Your task to perform on an android device: install app "Messages" Image 0: 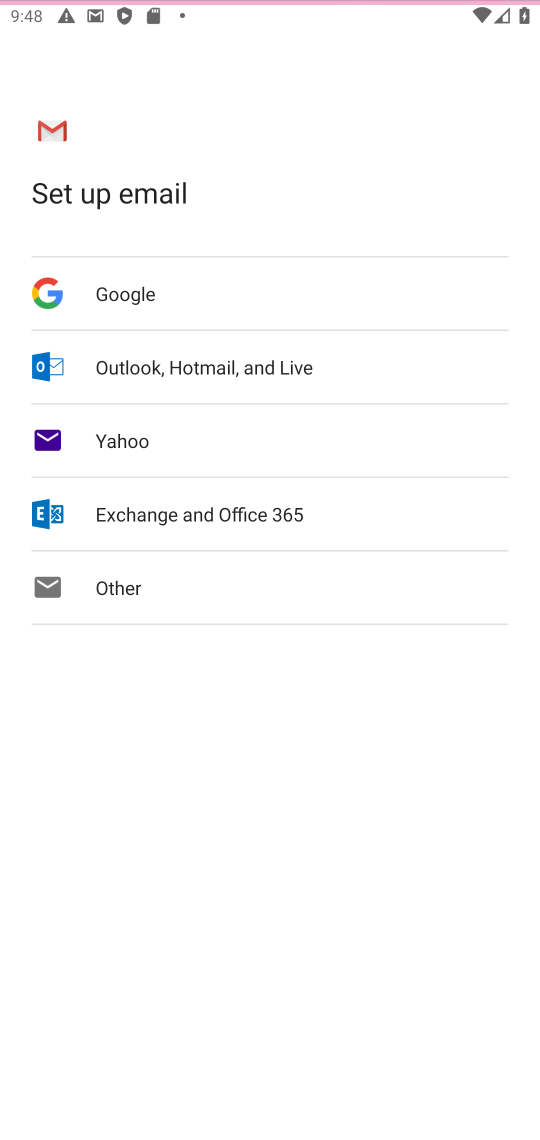
Step 0: click (216, 513)
Your task to perform on an android device: install app "Messages" Image 1: 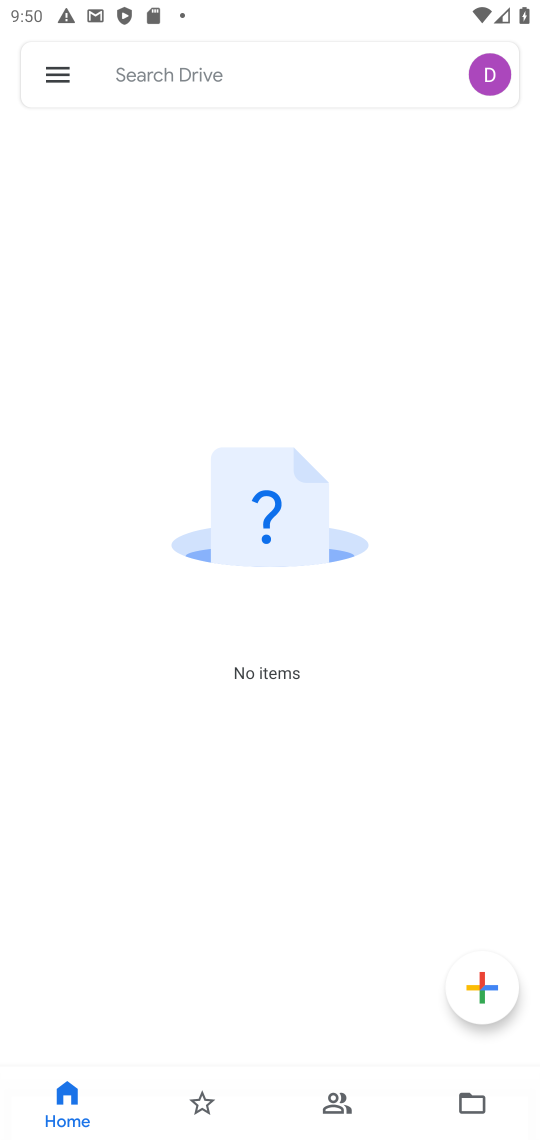
Step 1: press home button
Your task to perform on an android device: install app "Messages" Image 2: 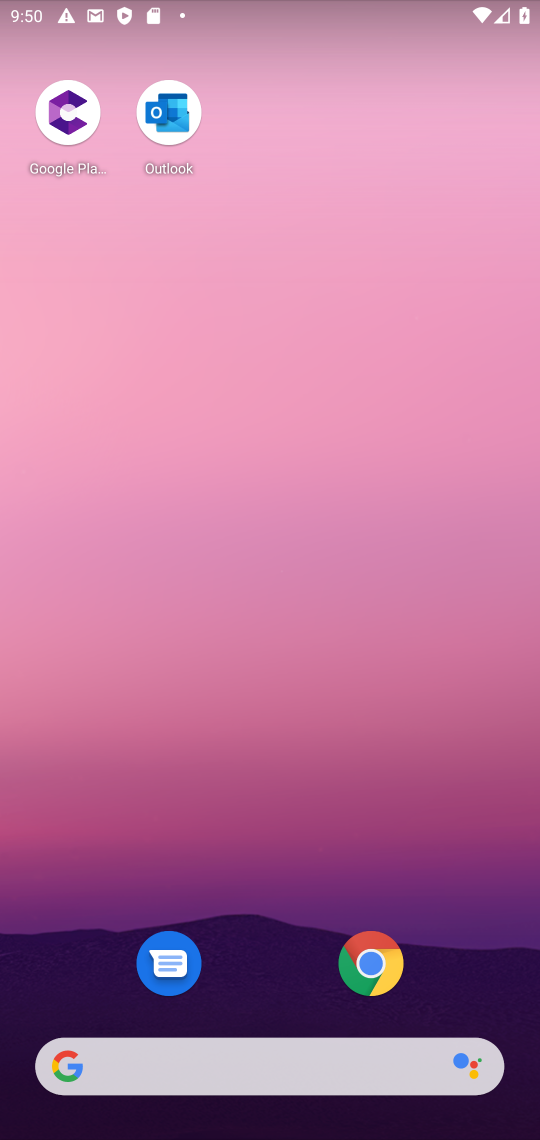
Step 2: click (187, 972)
Your task to perform on an android device: install app "Messages" Image 3: 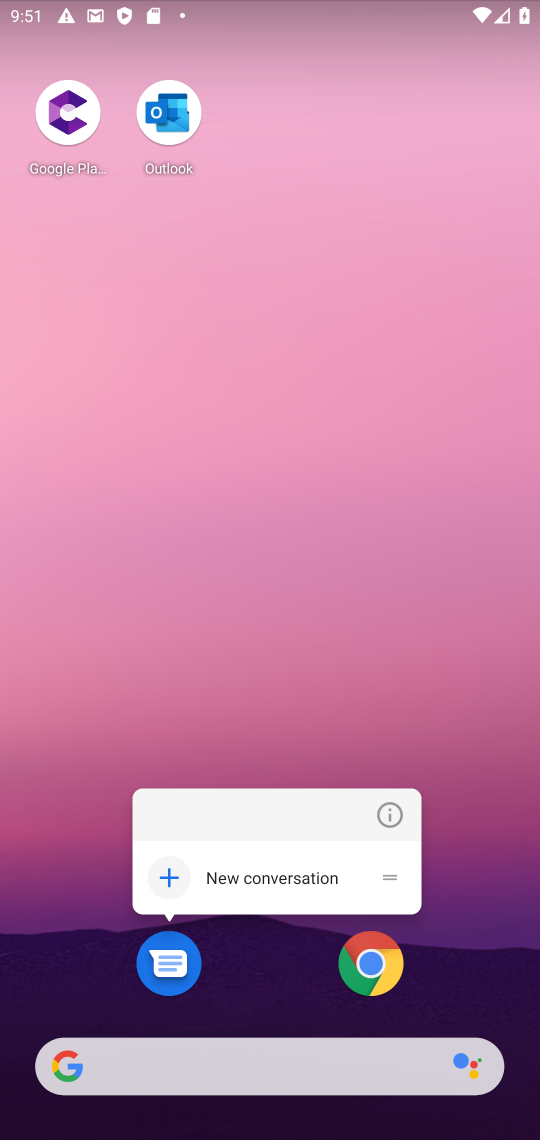
Step 3: click (181, 981)
Your task to perform on an android device: install app "Messages" Image 4: 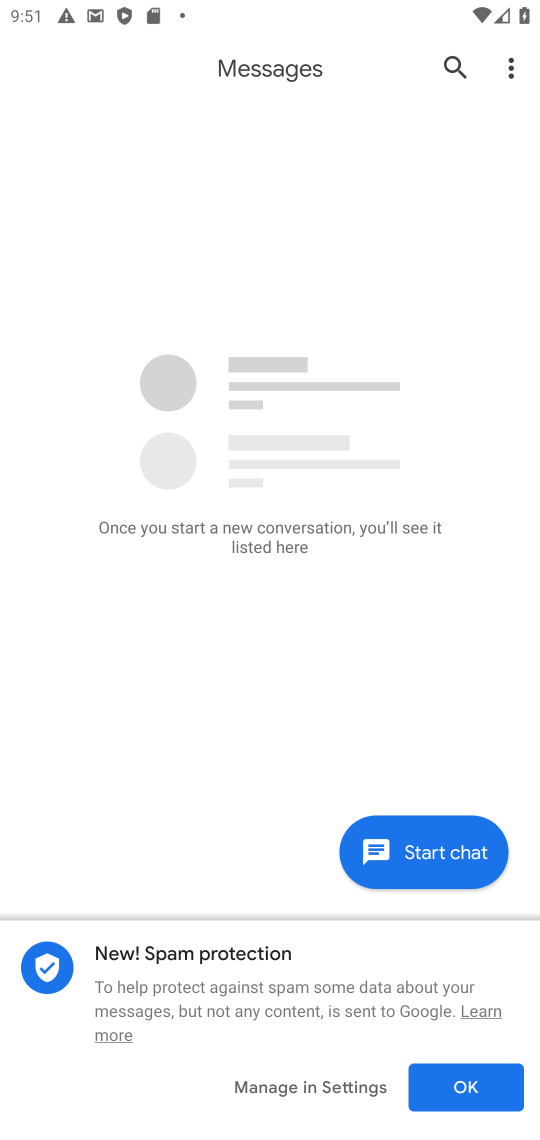
Step 4: task complete